Your task to perform on an android device: see sites visited before in the chrome app Image 0: 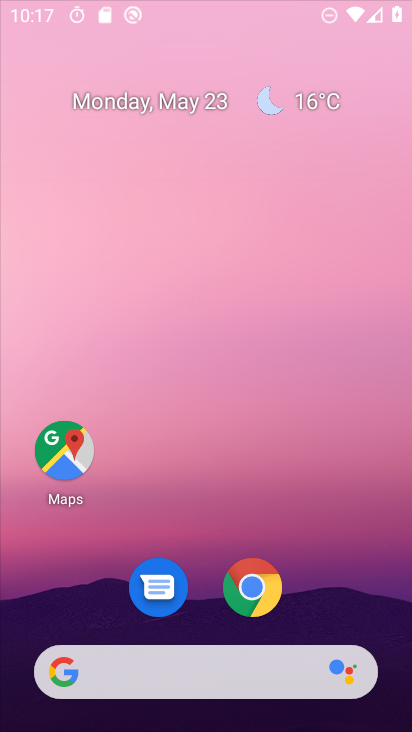
Step 0: click (261, 575)
Your task to perform on an android device: see sites visited before in the chrome app Image 1: 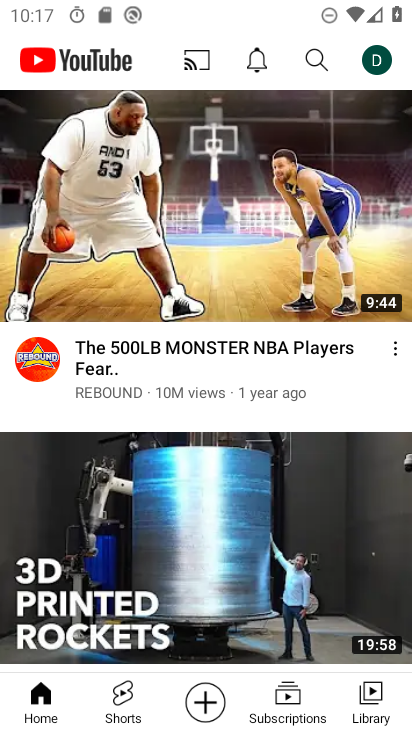
Step 1: press home button
Your task to perform on an android device: see sites visited before in the chrome app Image 2: 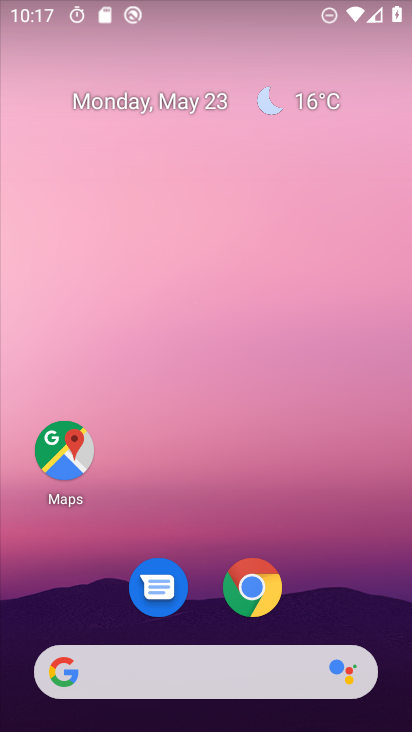
Step 2: click (236, 583)
Your task to perform on an android device: see sites visited before in the chrome app Image 3: 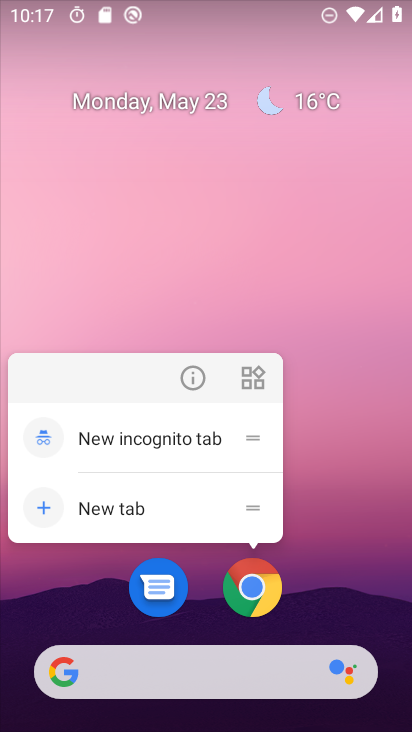
Step 3: click (246, 588)
Your task to perform on an android device: see sites visited before in the chrome app Image 4: 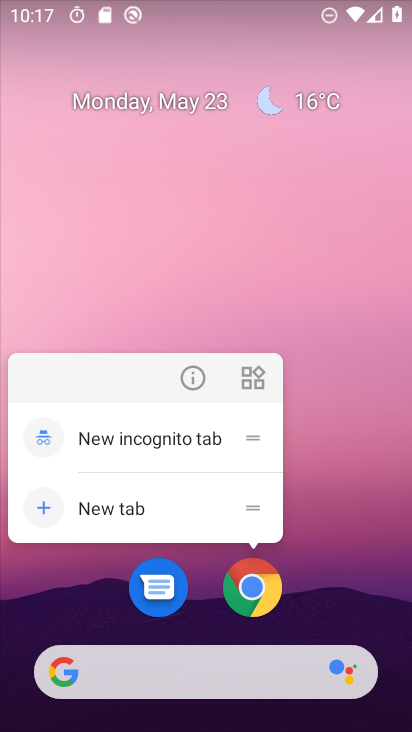
Step 4: click (253, 588)
Your task to perform on an android device: see sites visited before in the chrome app Image 5: 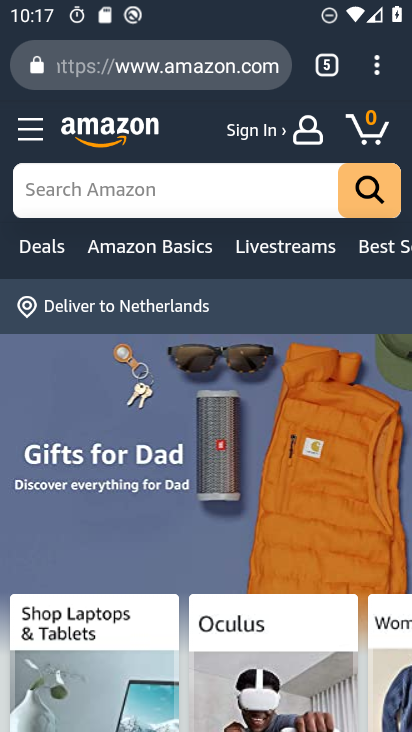
Step 5: task complete